Your task to perform on an android device: When is my next meeting? Image 0: 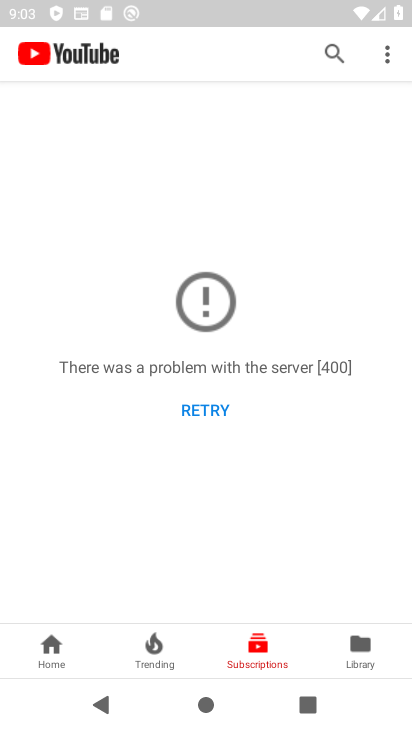
Step 0: press home button
Your task to perform on an android device: When is my next meeting? Image 1: 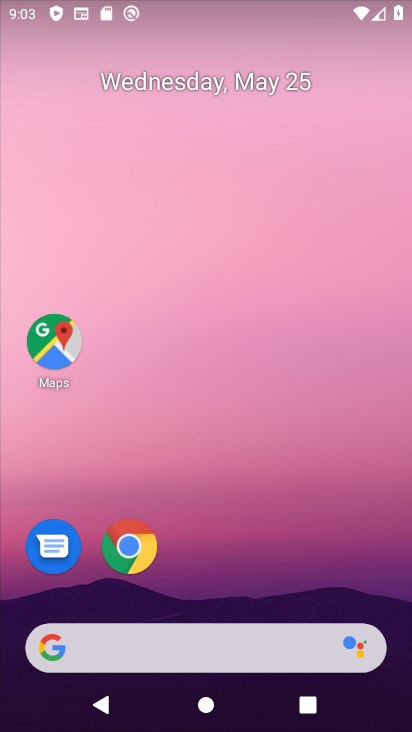
Step 1: drag from (136, 508) to (195, 197)
Your task to perform on an android device: When is my next meeting? Image 2: 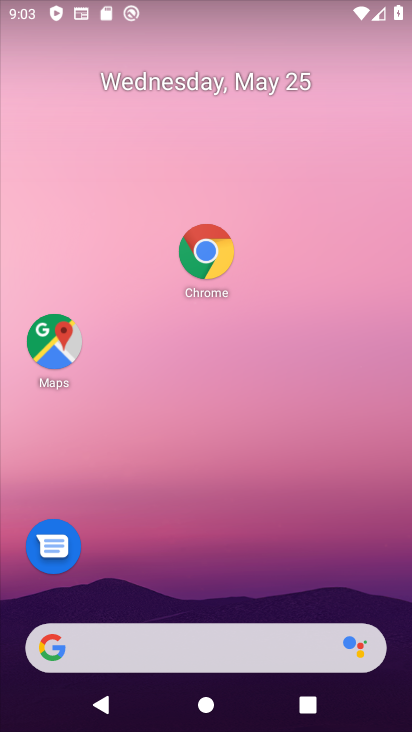
Step 2: drag from (241, 554) to (323, 234)
Your task to perform on an android device: When is my next meeting? Image 3: 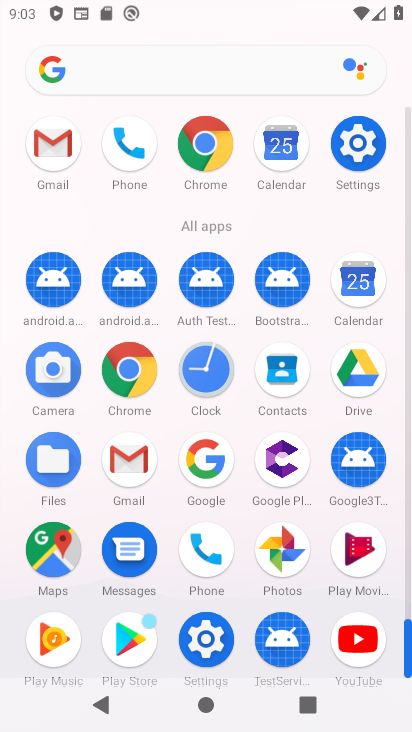
Step 3: click (349, 271)
Your task to perform on an android device: When is my next meeting? Image 4: 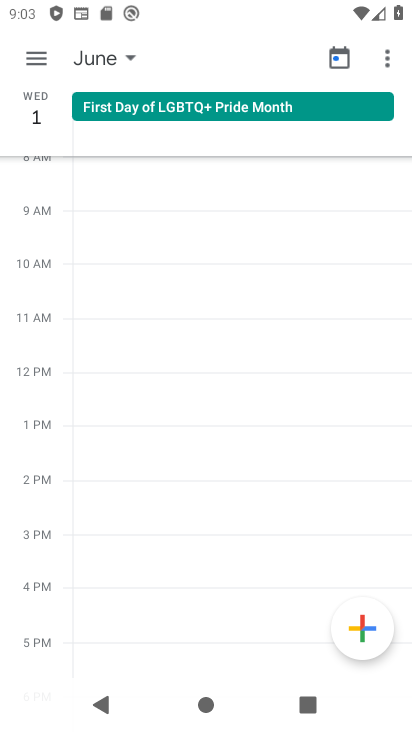
Step 4: click (33, 48)
Your task to perform on an android device: When is my next meeting? Image 5: 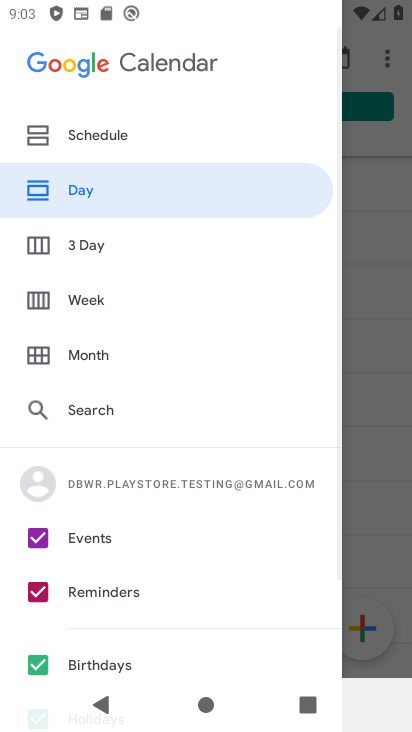
Step 5: click (92, 343)
Your task to perform on an android device: When is my next meeting? Image 6: 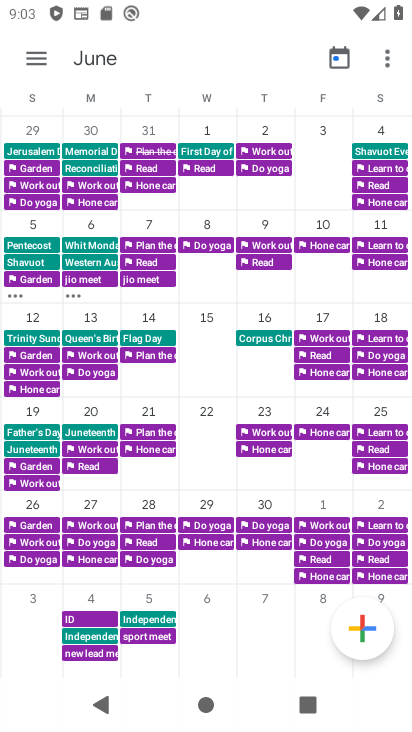
Step 6: drag from (82, 366) to (310, 415)
Your task to perform on an android device: When is my next meeting? Image 7: 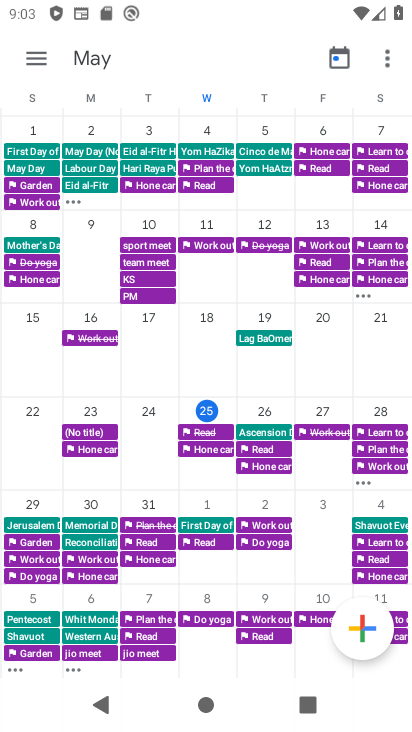
Step 7: click (335, 413)
Your task to perform on an android device: When is my next meeting? Image 8: 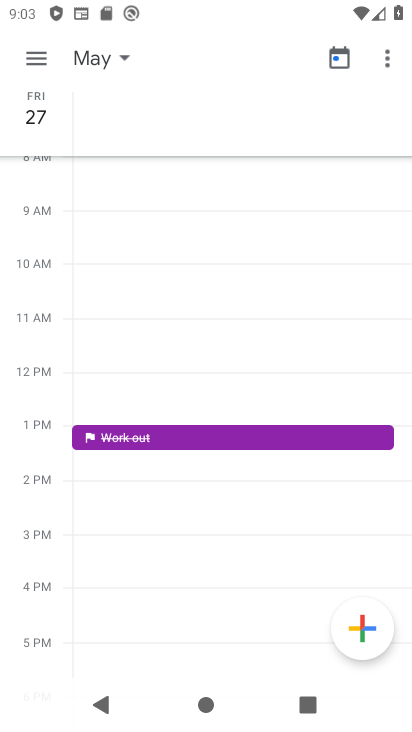
Step 8: click (28, 71)
Your task to perform on an android device: When is my next meeting? Image 9: 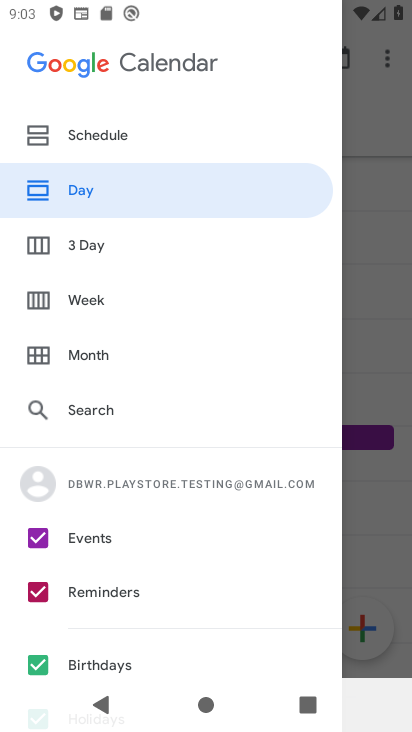
Step 9: click (107, 270)
Your task to perform on an android device: When is my next meeting? Image 10: 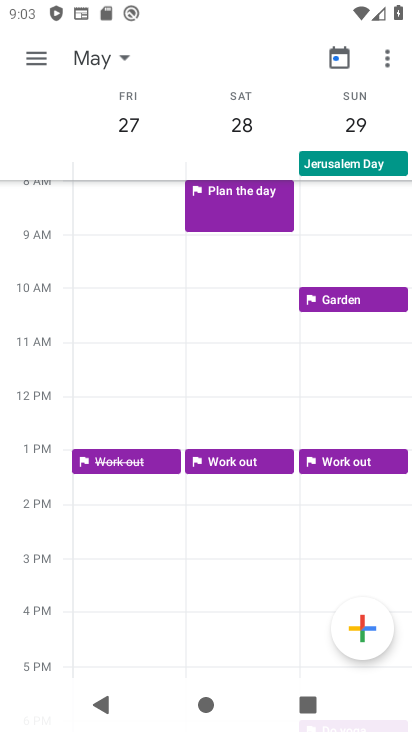
Step 10: click (38, 61)
Your task to perform on an android device: When is my next meeting? Image 11: 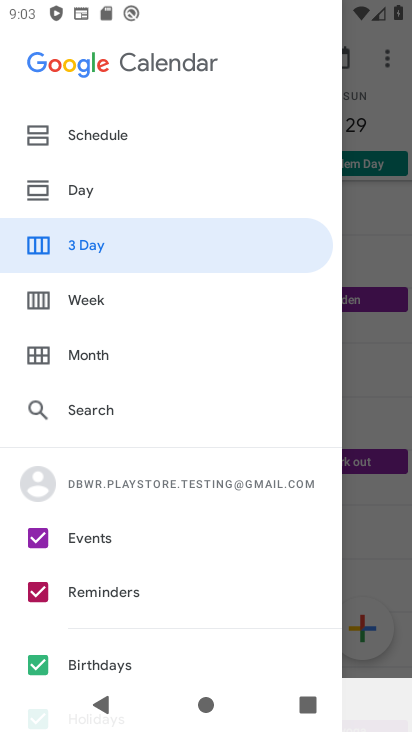
Step 11: click (89, 177)
Your task to perform on an android device: When is my next meeting? Image 12: 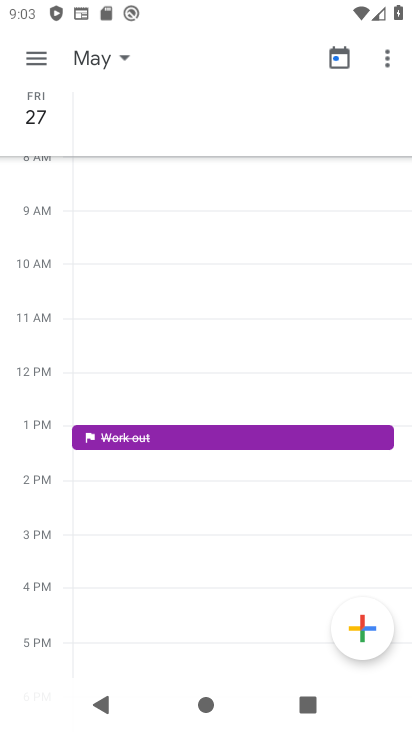
Step 12: task complete